Your task to perform on an android device: Open display settings Image 0: 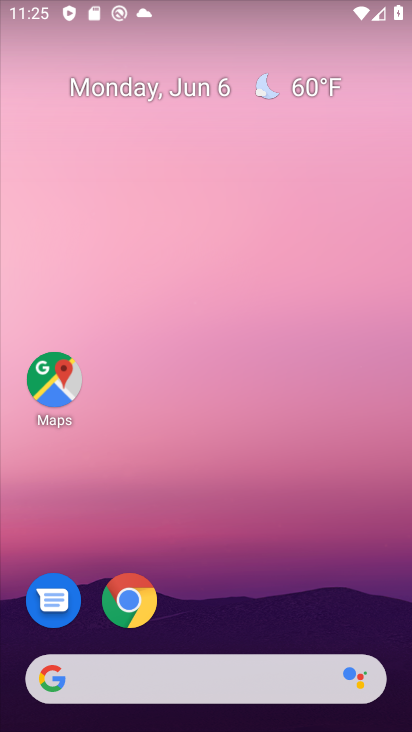
Step 0: drag from (199, 726) to (196, 71)
Your task to perform on an android device: Open display settings Image 1: 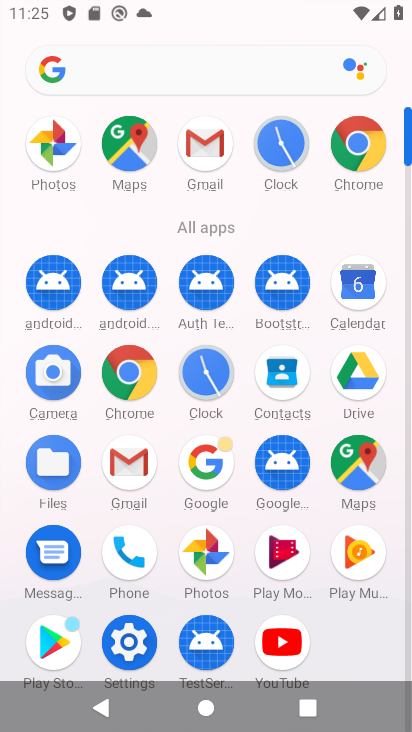
Step 1: click (136, 642)
Your task to perform on an android device: Open display settings Image 2: 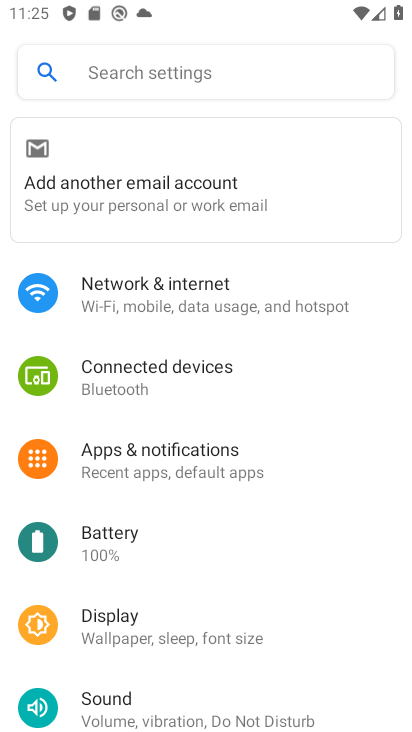
Step 2: click (116, 622)
Your task to perform on an android device: Open display settings Image 3: 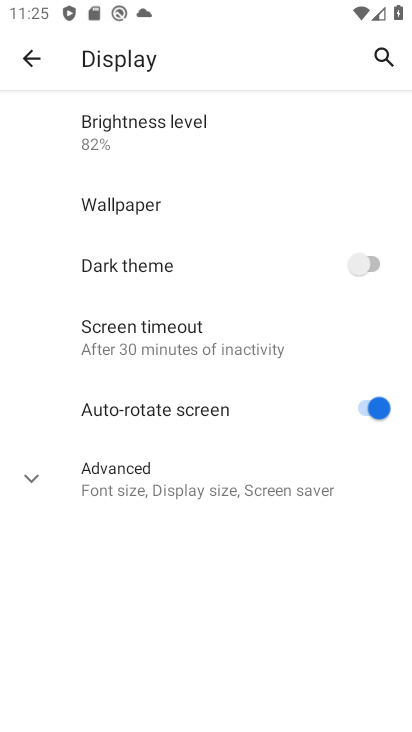
Step 3: task complete